Your task to perform on an android device: turn off improve location accuracy Image 0: 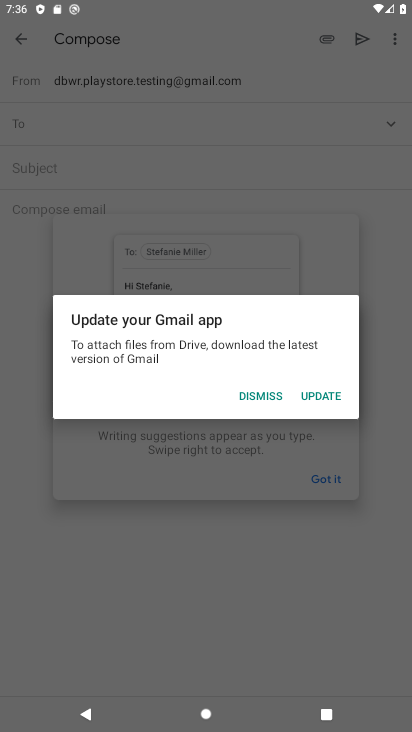
Step 0: press home button
Your task to perform on an android device: turn off improve location accuracy Image 1: 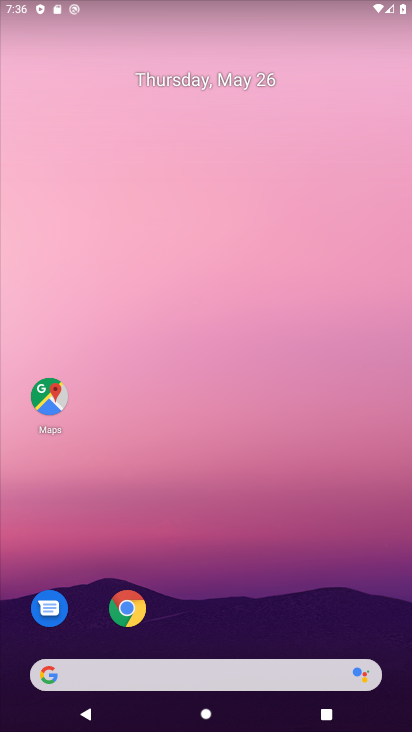
Step 1: drag from (313, 645) to (297, 11)
Your task to perform on an android device: turn off improve location accuracy Image 2: 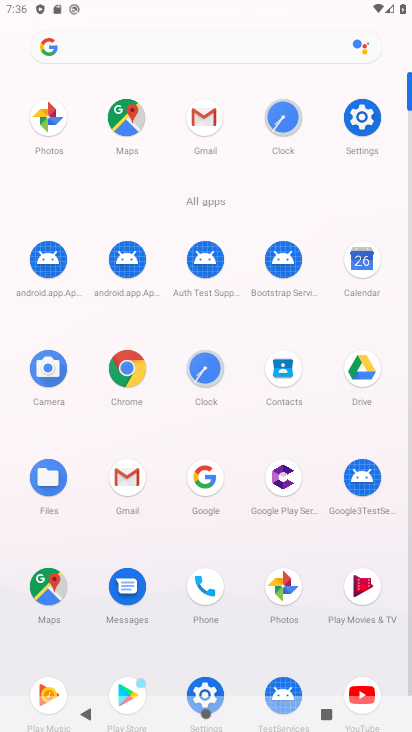
Step 2: click (361, 121)
Your task to perform on an android device: turn off improve location accuracy Image 3: 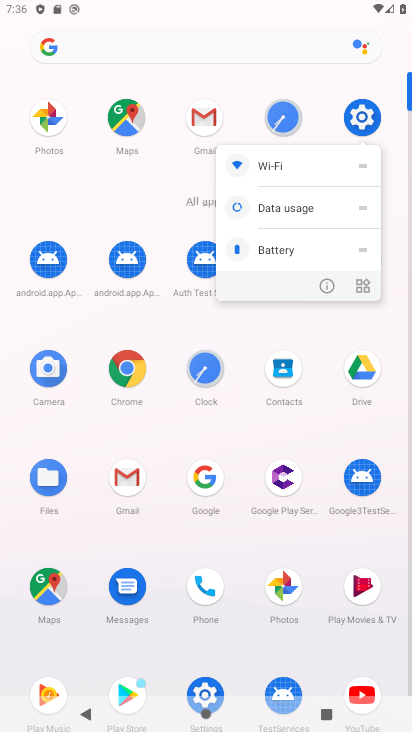
Step 3: click (361, 121)
Your task to perform on an android device: turn off improve location accuracy Image 4: 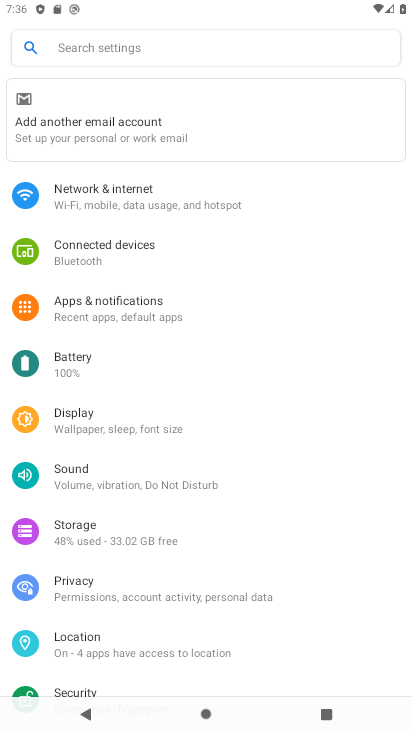
Step 4: click (78, 645)
Your task to perform on an android device: turn off improve location accuracy Image 5: 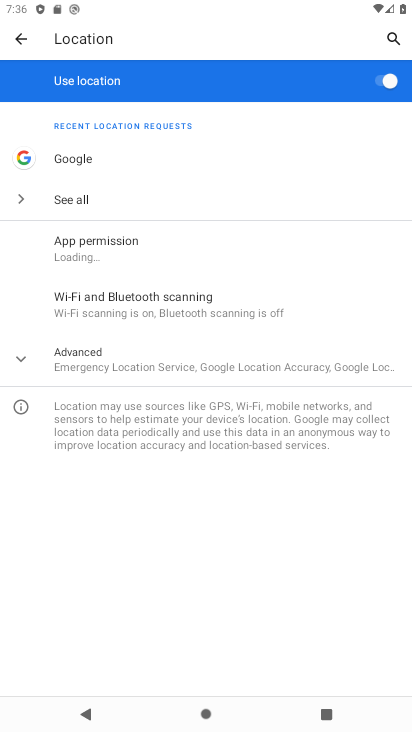
Step 5: click (23, 355)
Your task to perform on an android device: turn off improve location accuracy Image 6: 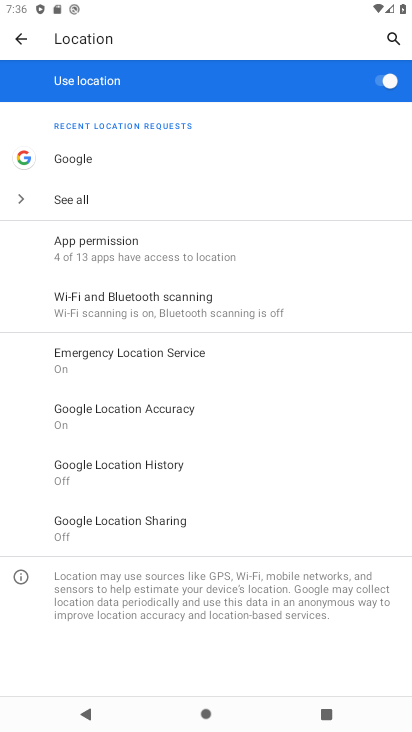
Step 6: click (103, 408)
Your task to perform on an android device: turn off improve location accuracy Image 7: 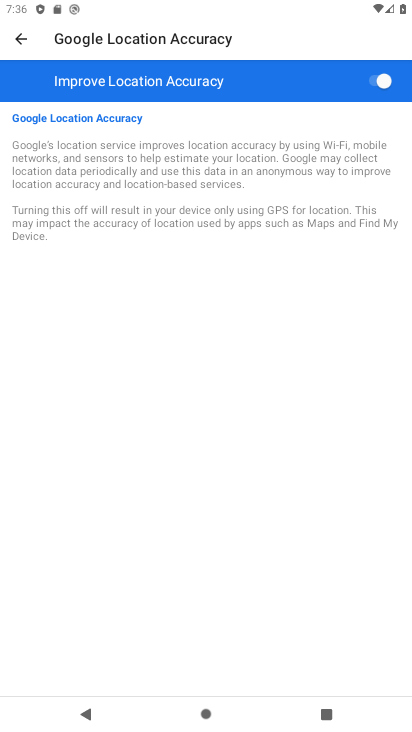
Step 7: click (382, 82)
Your task to perform on an android device: turn off improve location accuracy Image 8: 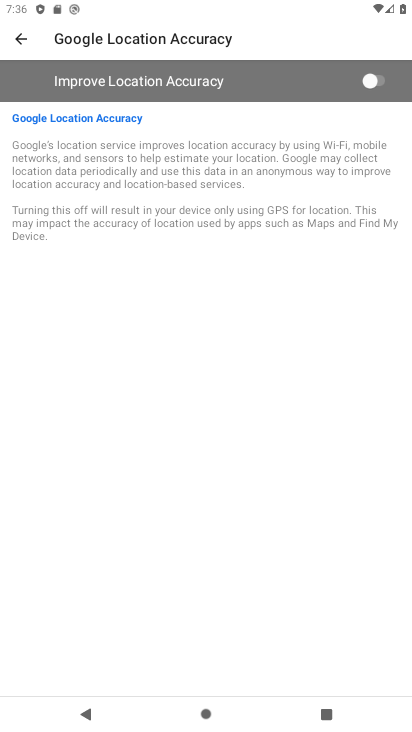
Step 8: task complete